Your task to perform on an android device: Open calendar and show me the third week of next month Image 0: 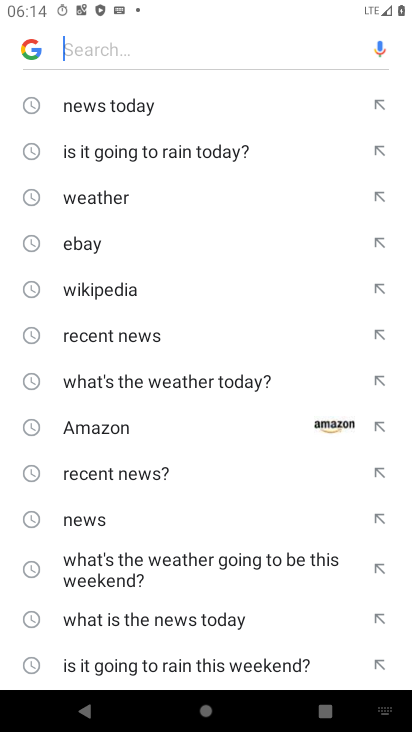
Step 0: press home button
Your task to perform on an android device: Open calendar and show me the third week of next month Image 1: 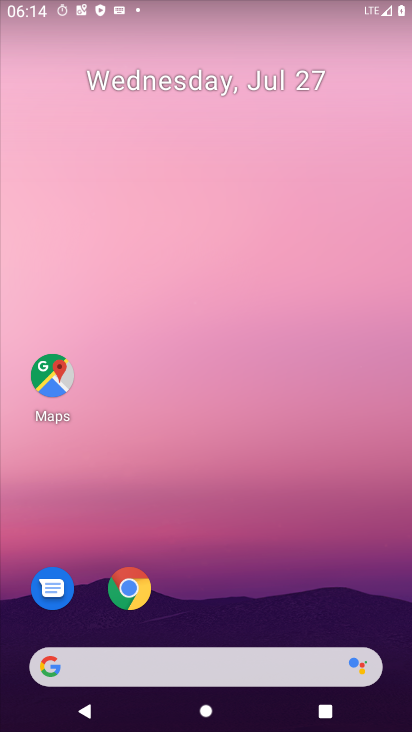
Step 1: drag from (297, 663) to (346, 7)
Your task to perform on an android device: Open calendar and show me the third week of next month Image 2: 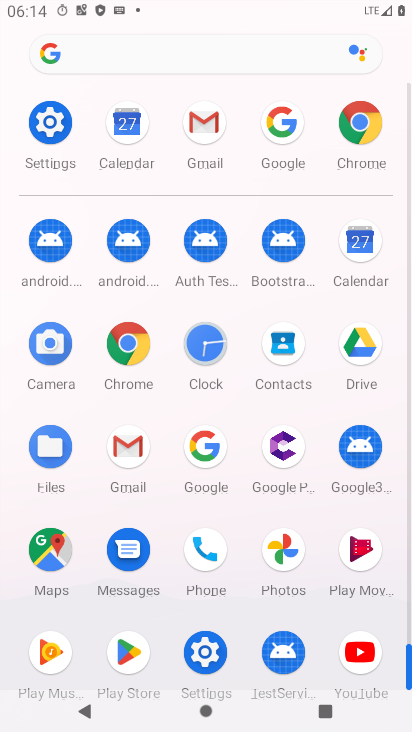
Step 2: click (366, 247)
Your task to perform on an android device: Open calendar and show me the third week of next month Image 3: 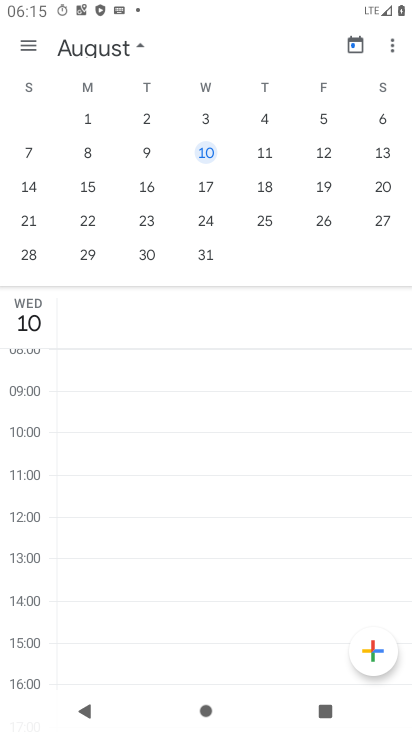
Step 3: click (210, 181)
Your task to perform on an android device: Open calendar and show me the third week of next month Image 4: 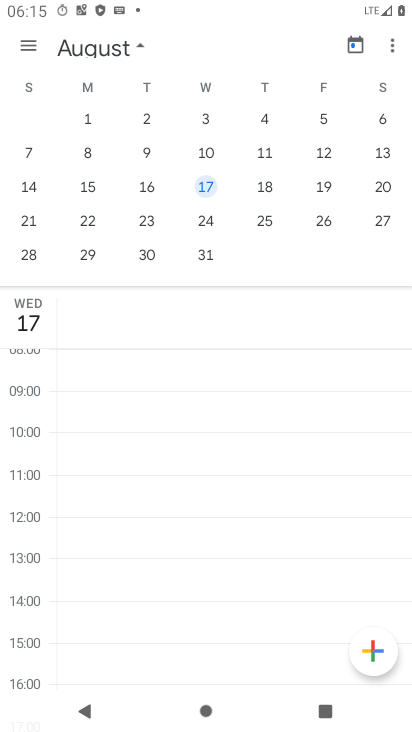
Step 4: task complete